Your task to perform on an android device: change notifications settings Image 0: 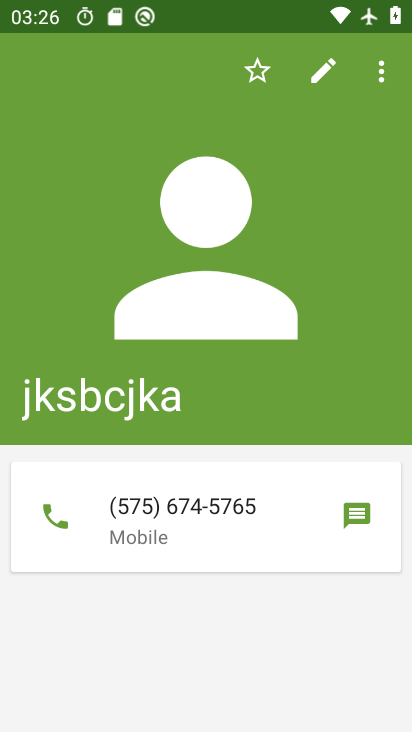
Step 0: press home button
Your task to perform on an android device: change notifications settings Image 1: 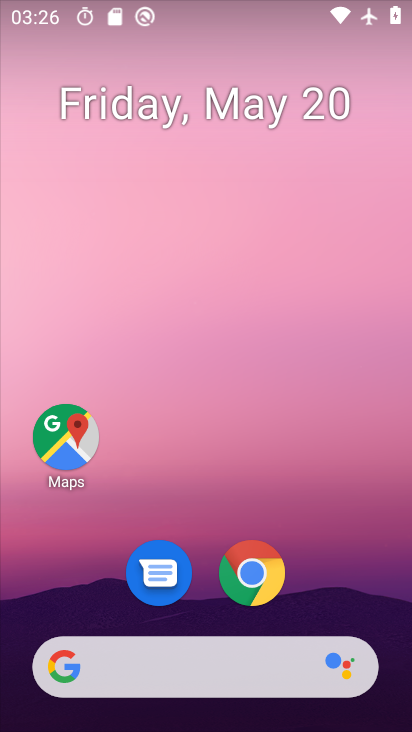
Step 1: drag from (205, 618) to (201, 261)
Your task to perform on an android device: change notifications settings Image 2: 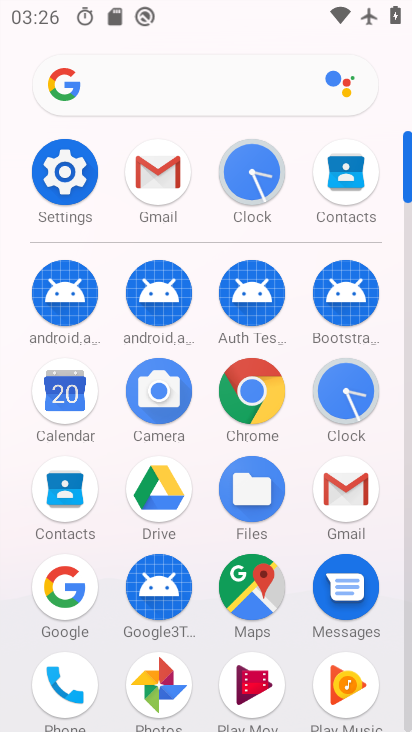
Step 2: click (94, 161)
Your task to perform on an android device: change notifications settings Image 3: 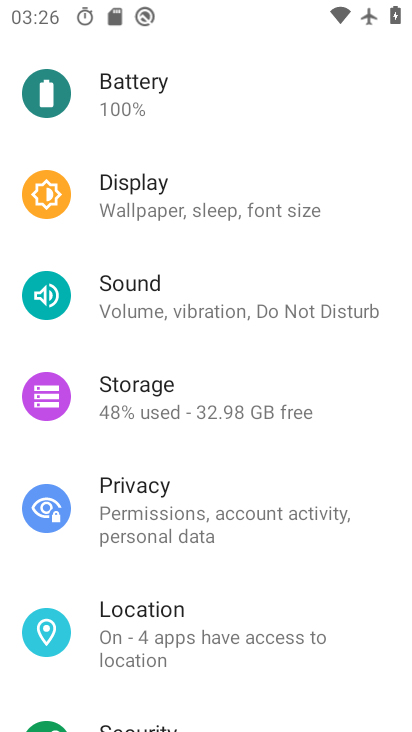
Step 3: drag from (195, 242) to (205, 528)
Your task to perform on an android device: change notifications settings Image 4: 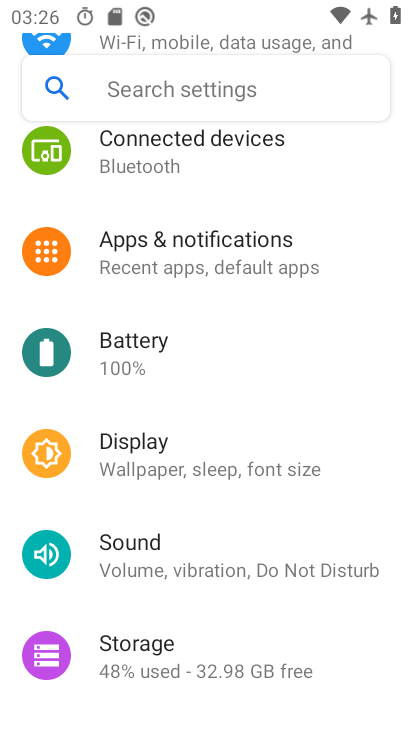
Step 4: click (191, 276)
Your task to perform on an android device: change notifications settings Image 5: 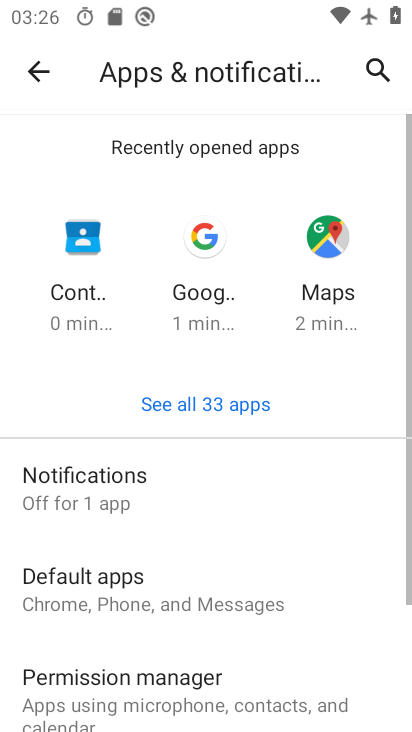
Step 5: click (118, 475)
Your task to perform on an android device: change notifications settings Image 6: 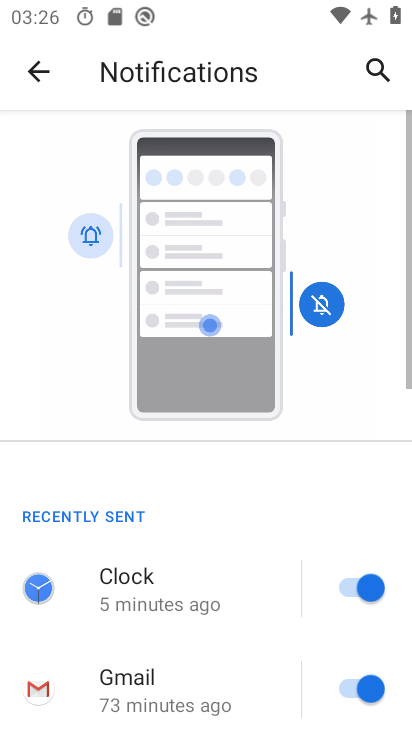
Step 6: drag from (197, 654) to (248, 197)
Your task to perform on an android device: change notifications settings Image 7: 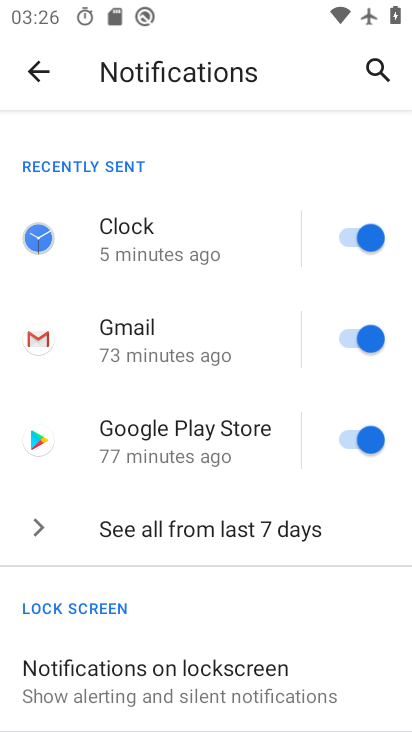
Step 7: drag from (278, 667) to (284, 421)
Your task to perform on an android device: change notifications settings Image 8: 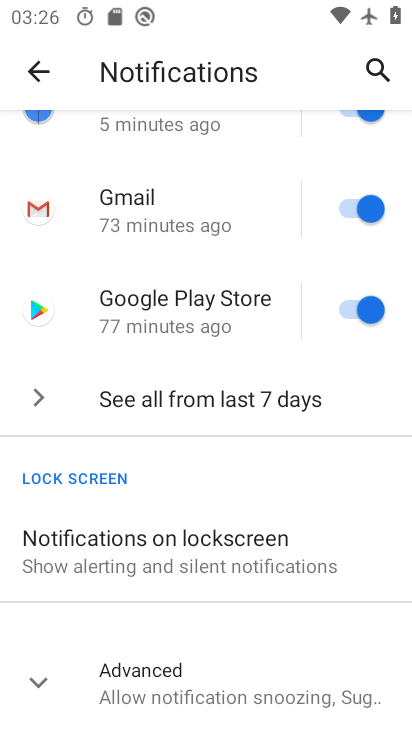
Step 8: click (290, 546)
Your task to perform on an android device: change notifications settings Image 9: 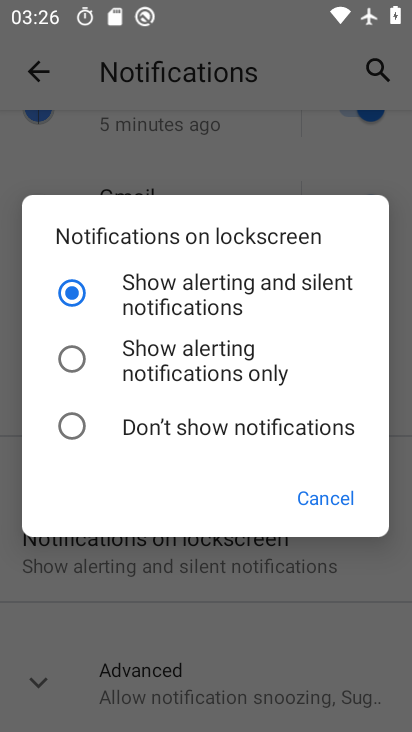
Step 9: click (203, 413)
Your task to perform on an android device: change notifications settings Image 10: 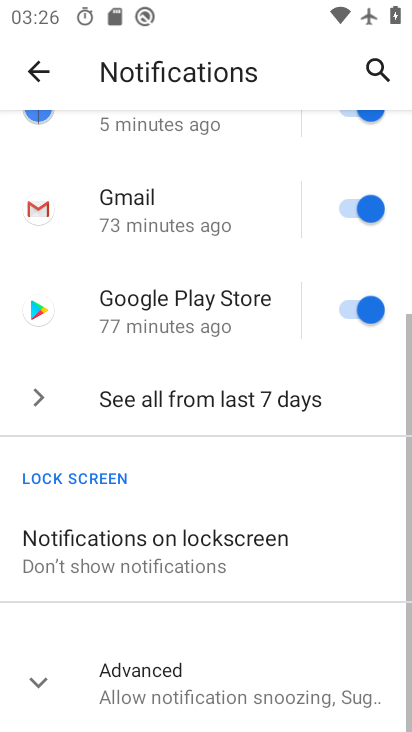
Step 10: task complete